Your task to perform on an android device: Open Android settings Image 0: 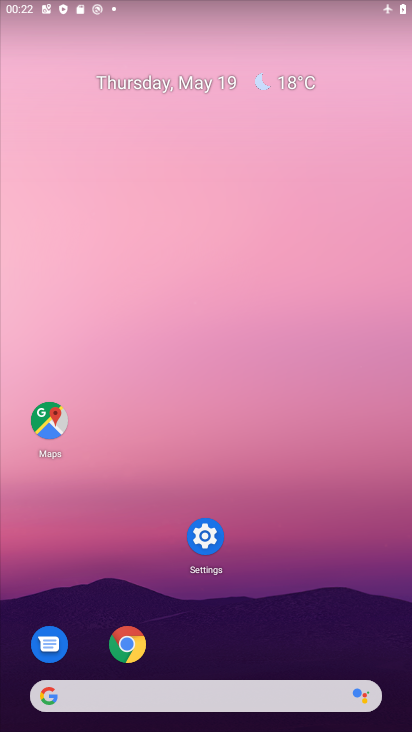
Step 0: drag from (285, 598) to (283, 89)
Your task to perform on an android device: Open Android settings Image 1: 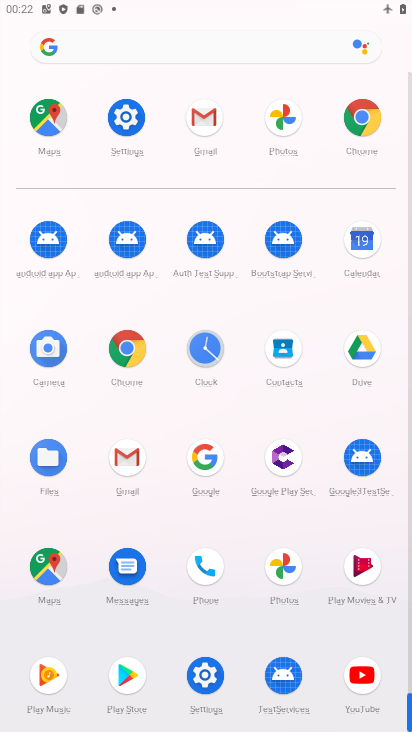
Step 1: click (134, 120)
Your task to perform on an android device: Open Android settings Image 2: 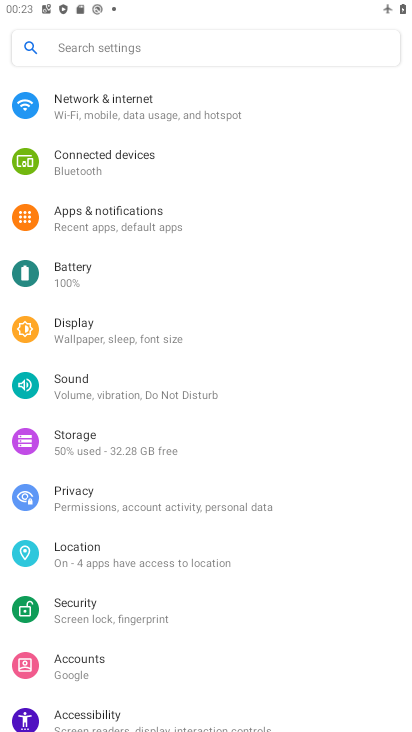
Step 2: task complete